Your task to perform on an android device: Open location settings Image 0: 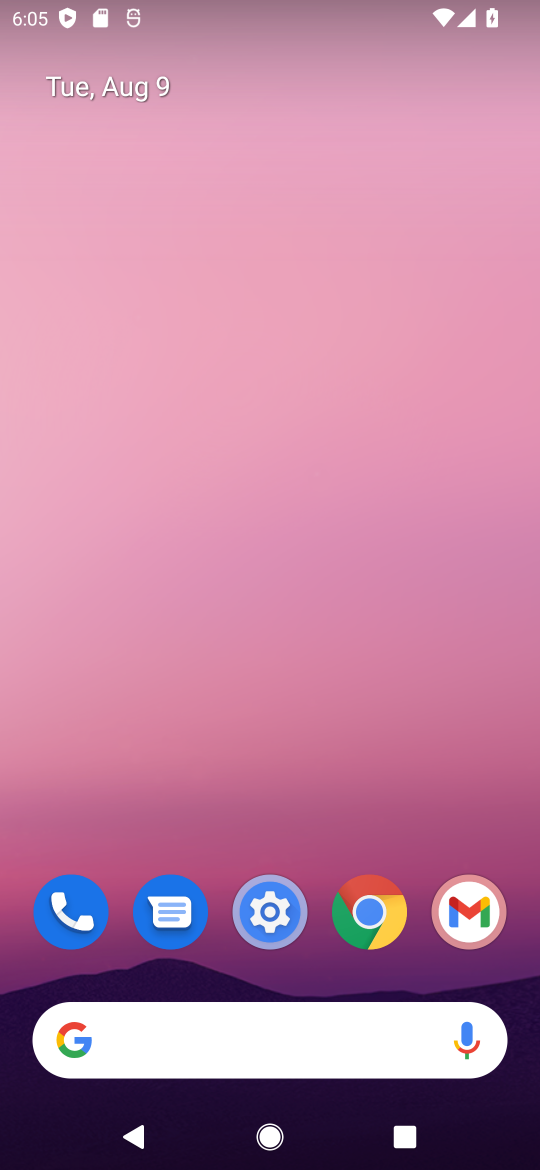
Step 0: click (273, 906)
Your task to perform on an android device: Open location settings Image 1: 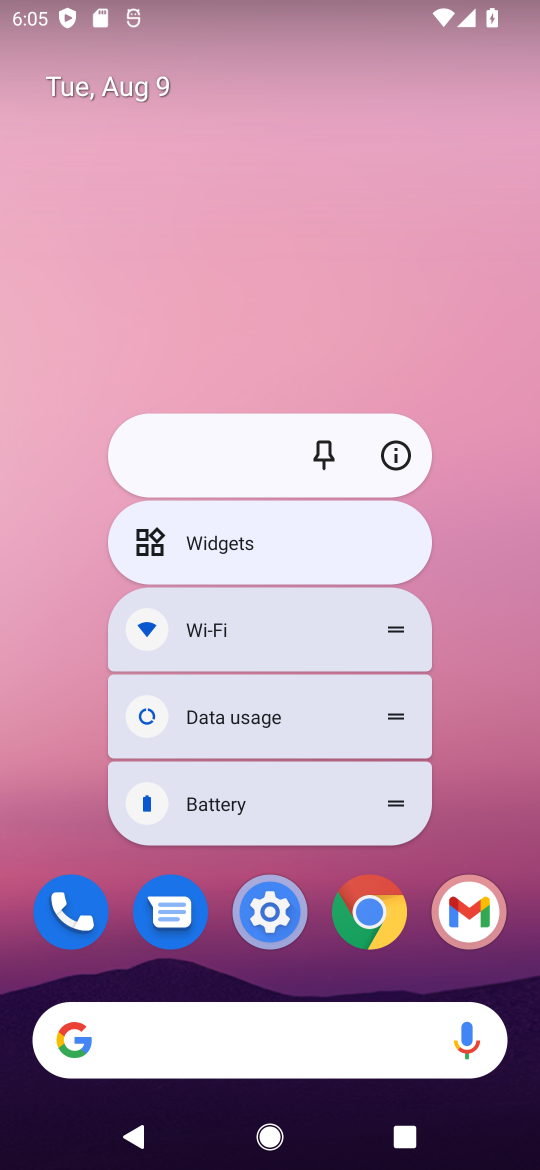
Step 1: click (282, 923)
Your task to perform on an android device: Open location settings Image 2: 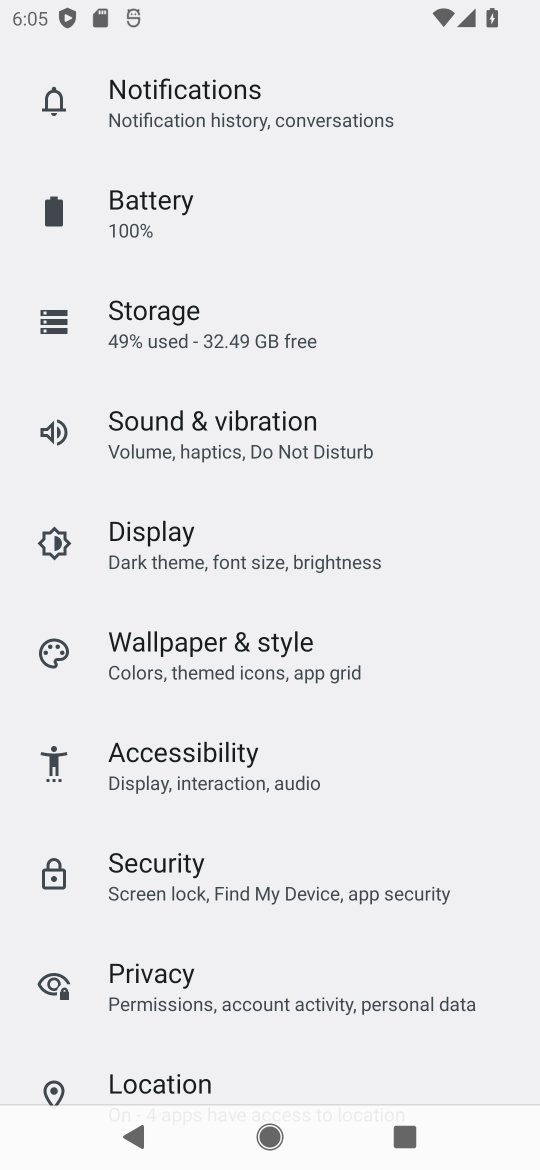
Step 2: click (169, 1081)
Your task to perform on an android device: Open location settings Image 3: 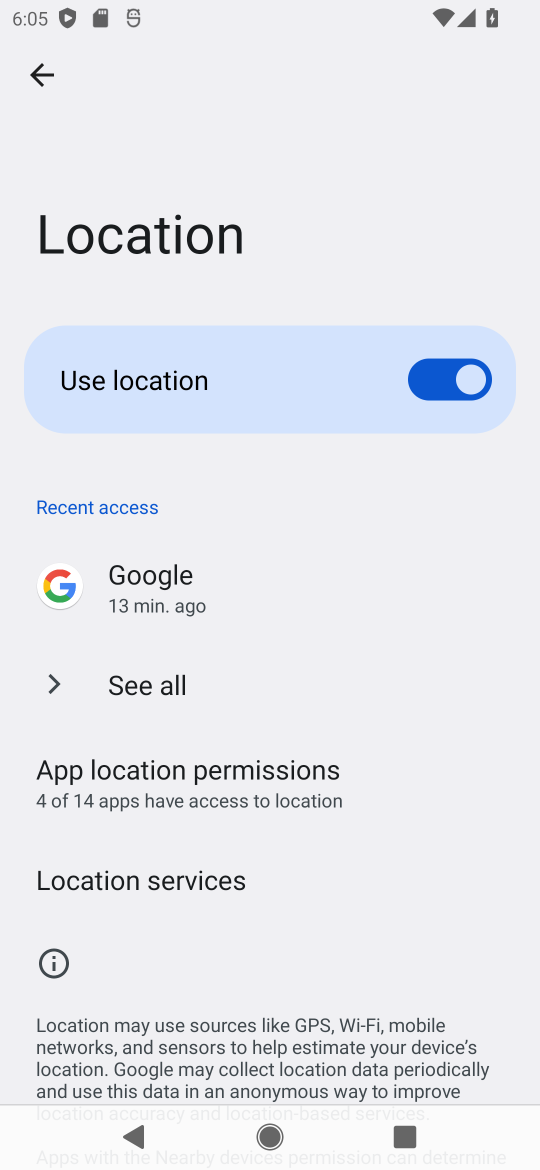
Step 3: task complete